Your task to perform on an android device: open device folders in google photos Image 0: 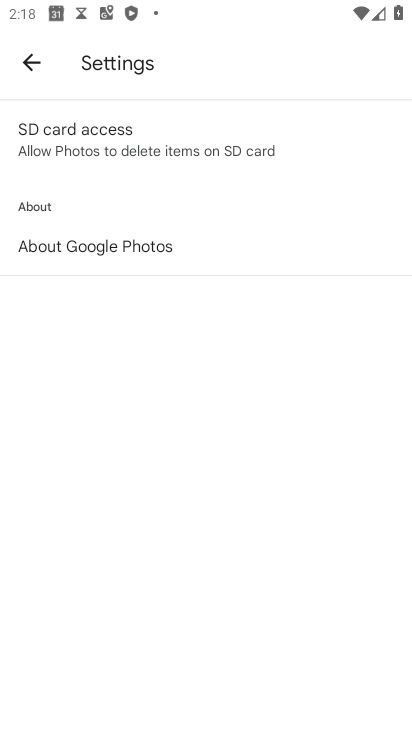
Step 0: press back button
Your task to perform on an android device: open device folders in google photos Image 1: 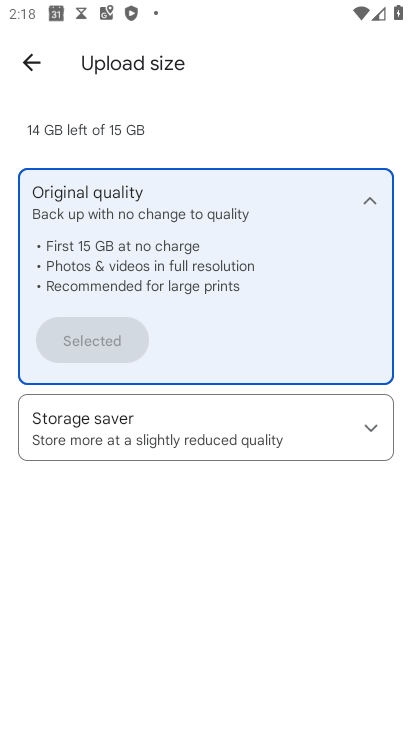
Step 1: press back button
Your task to perform on an android device: open device folders in google photos Image 2: 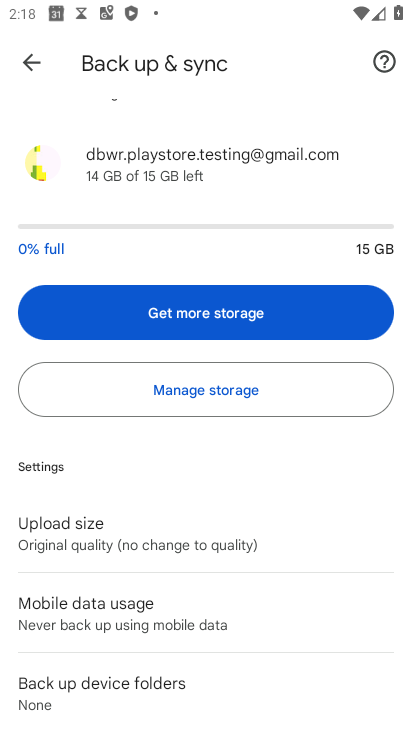
Step 2: drag from (243, 667) to (251, 208)
Your task to perform on an android device: open device folders in google photos Image 3: 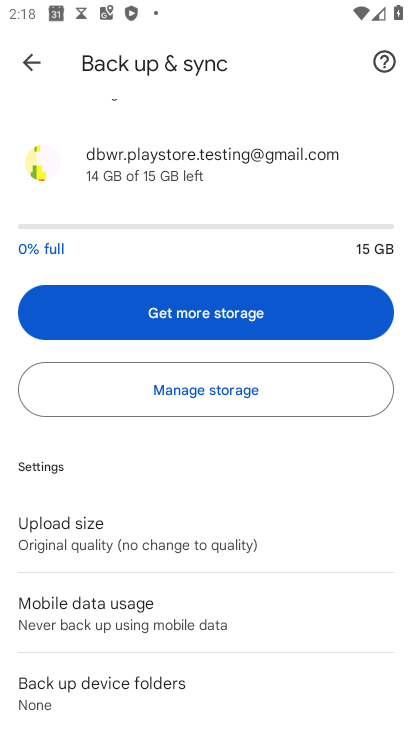
Step 3: click (16, 53)
Your task to perform on an android device: open device folders in google photos Image 4: 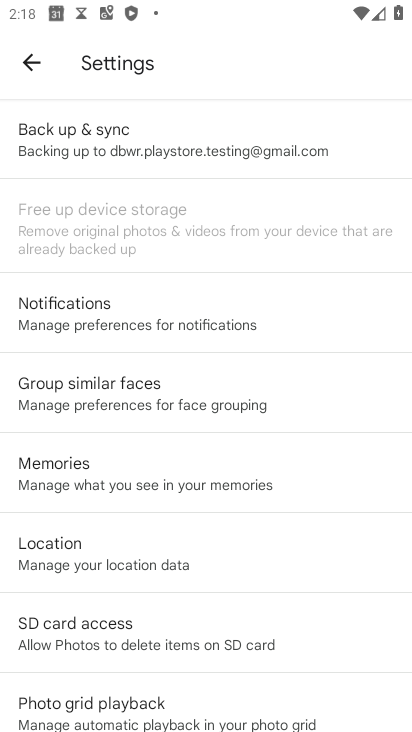
Step 4: drag from (209, 585) to (255, 151)
Your task to perform on an android device: open device folders in google photos Image 5: 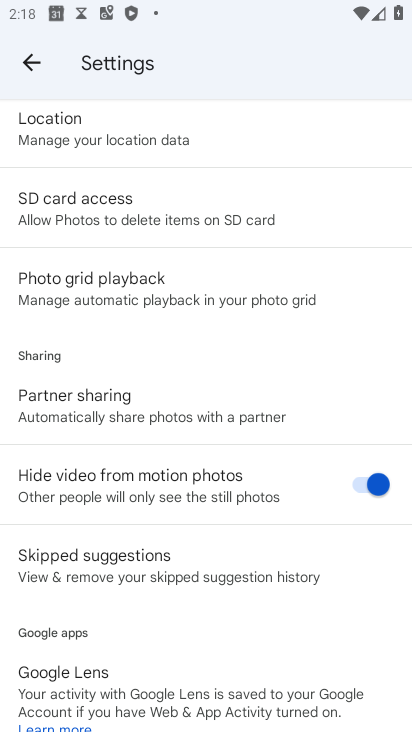
Step 5: drag from (186, 589) to (176, 159)
Your task to perform on an android device: open device folders in google photos Image 6: 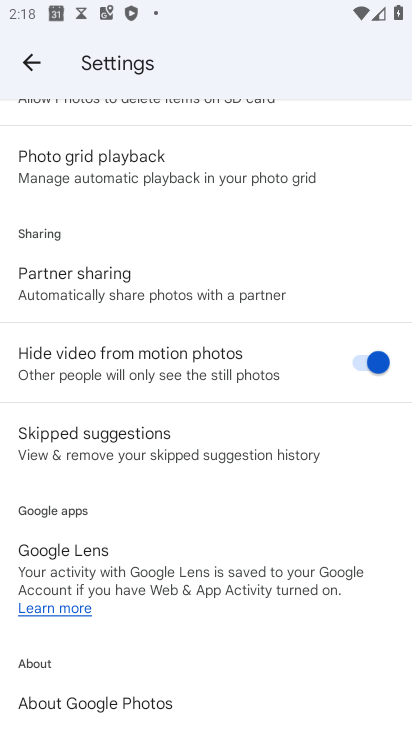
Step 6: drag from (140, 118) to (138, 600)
Your task to perform on an android device: open device folders in google photos Image 7: 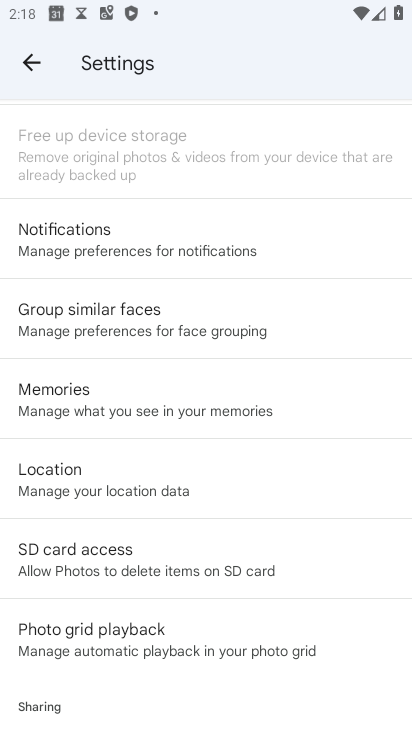
Step 7: click (33, 50)
Your task to perform on an android device: open device folders in google photos Image 8: 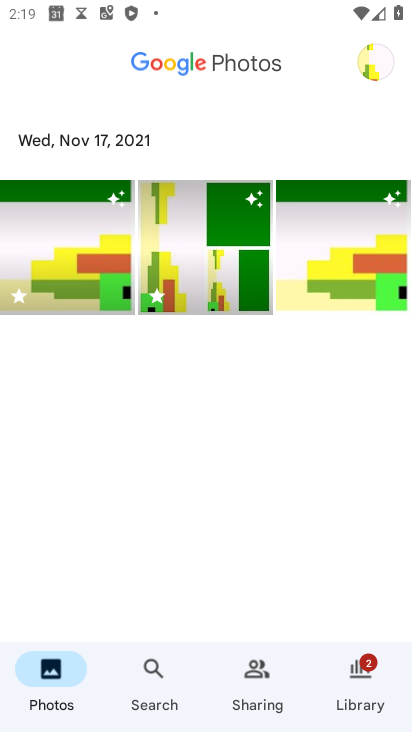
Step 8: click (368, 62)
Your task to perform on an android device: open device folders in google photos Image 9: 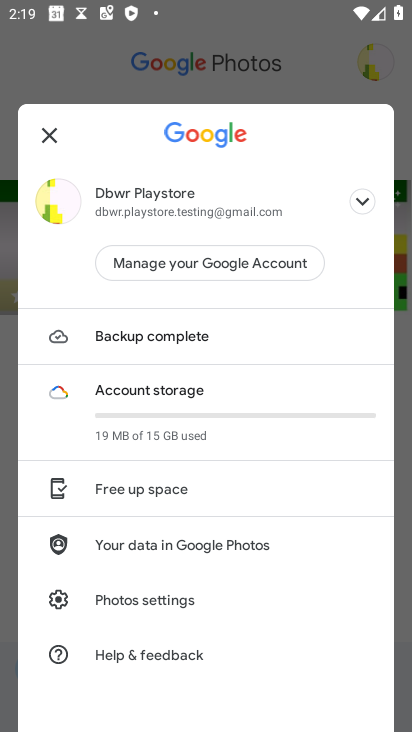
Step 9: drag from (218, 605) to (244, 191)
Your task to perform on an android device: open device folders in google photos Image 10: 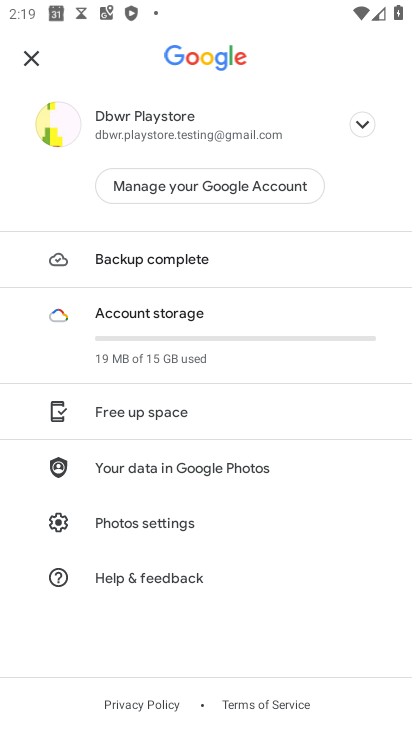
Step 10: click (15, 49)
Your task to perform on an android device: open device folders in google photos Image 11: 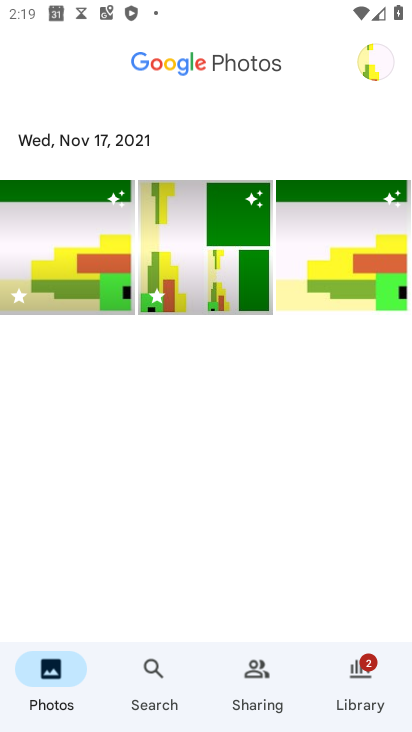
Step 11: click (24, 60)
Your task to perform on an android device: open device folders in google photos Image 12: 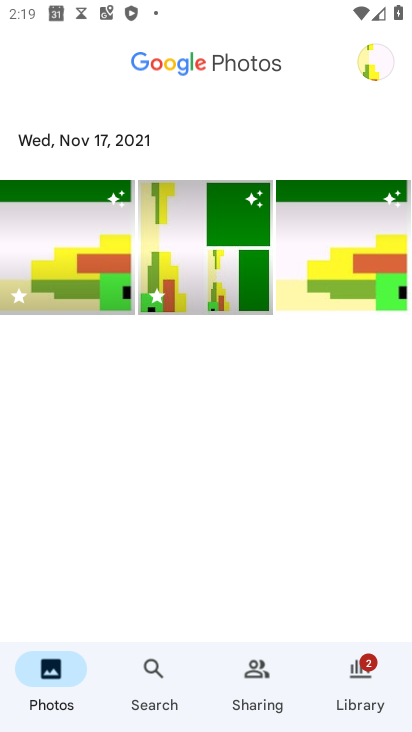
Step 12: click (86, 57)
Your task to perform on an android device: open device folders in google photos Image 13: 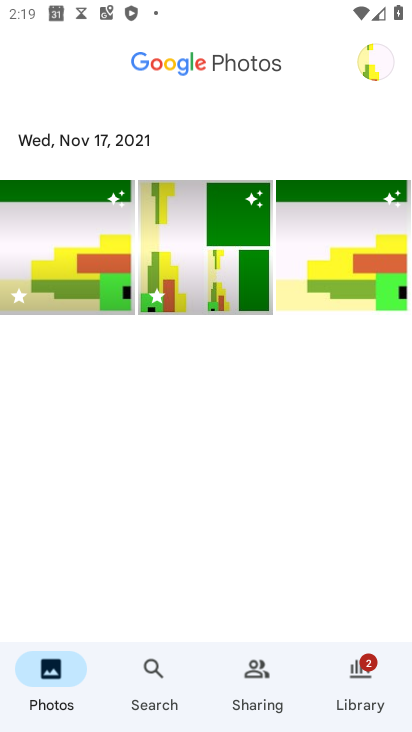
Step 13: click (263, 684)
Your task to perform on an android device: open device folders in google photos Image 14: 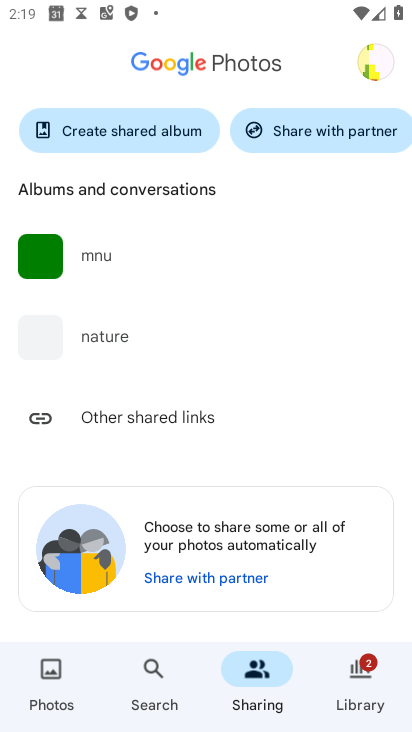
Step 14: click (340, 678)
Your task to perform on an android device: open device folders in google photos Image 15: 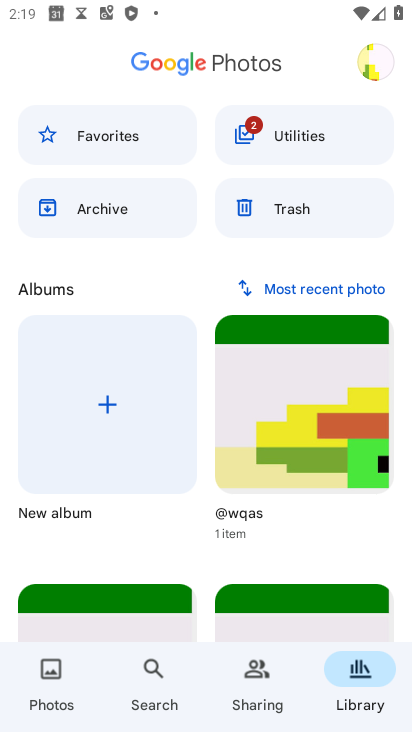
Step 15: drag from (272, 531) to (300, 165)
Your task to perform on an android device: open device folders in google photos Image 16: 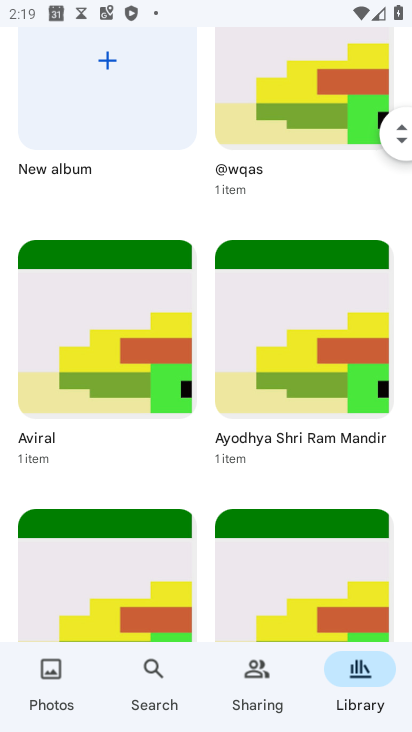
Step 16: click (275, 699)
Your task to perform on an android device: open device folders in google photos Image 17: 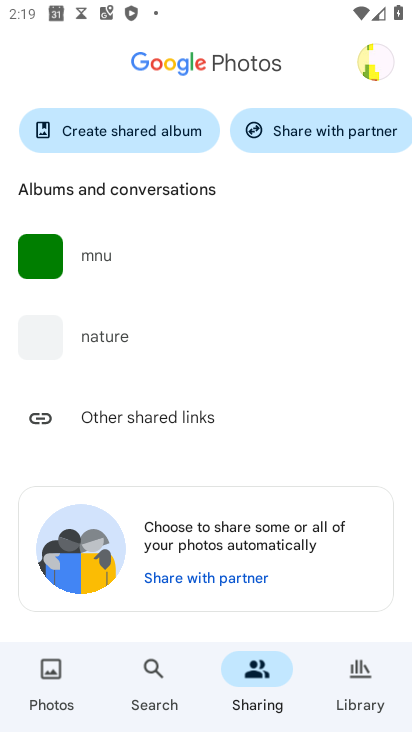
Step 17: drag from (240, 531) to (279, 167)
Your task to perform on an android device: open device folders in google photos Image 18: 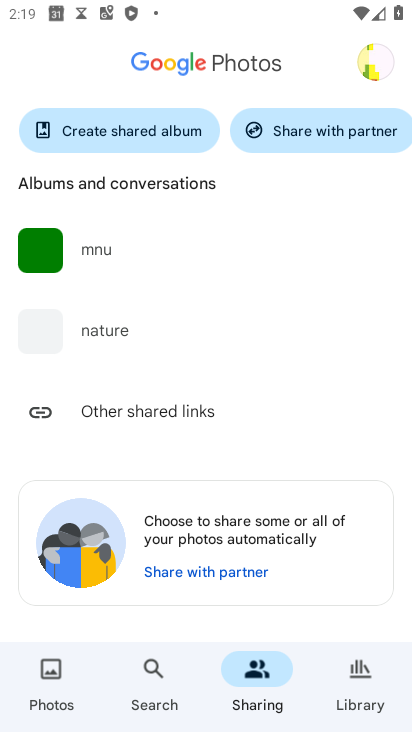
Step 18: drag from (279, 198) to (272, 516)
Your task to perform on an android device: open device folders in google photos Image 19: 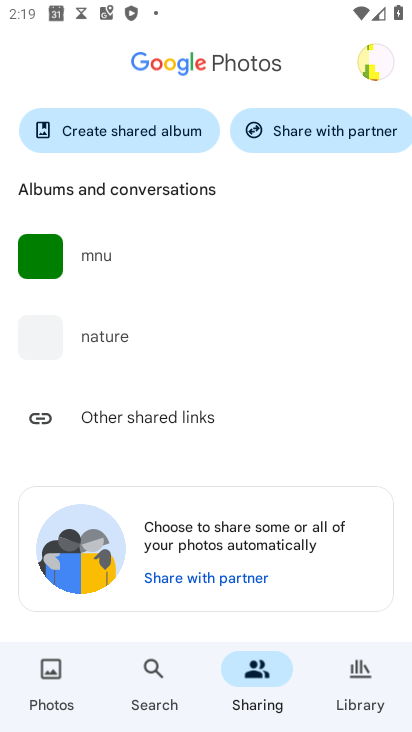
Step 19: click (26, 666)
Your task to perform on an android device: open device folders in google photos Image 20: 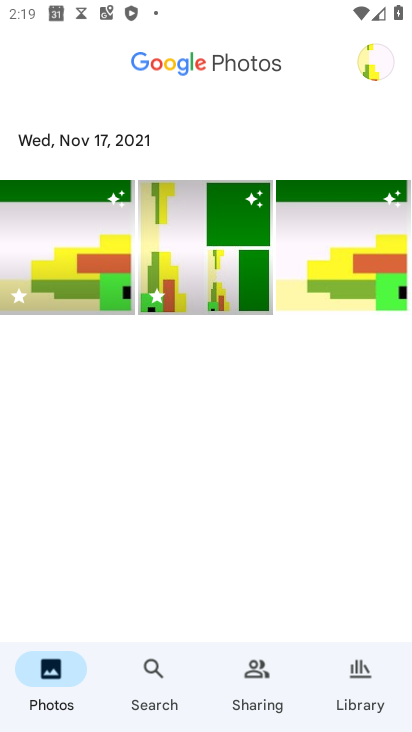
Step 20: click (399, 52)
Your task to perform on an android device: open device folders in google photos Image 21: 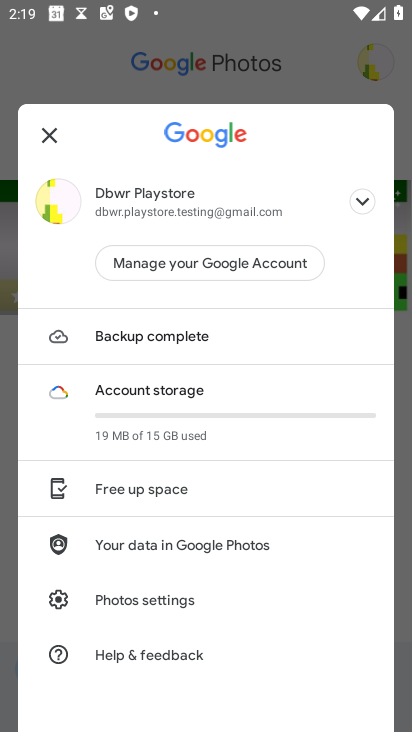
Step 21: click (195, 591)
Your task to perform on an android device: open device folders in google photos Image 22: 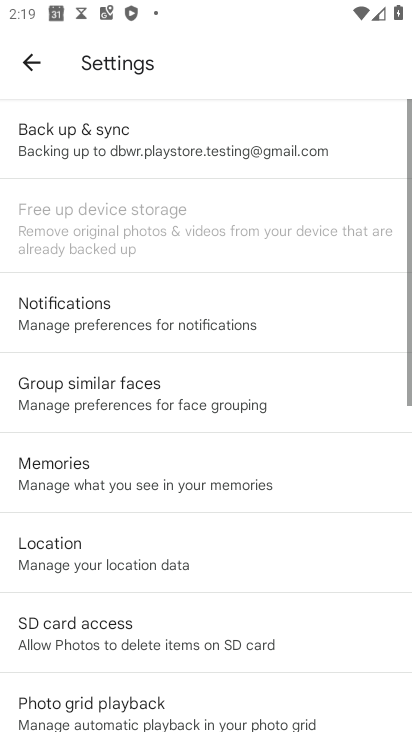
Step 22: task complete